Your task to perform on an android device: change notifications settings Image 0: 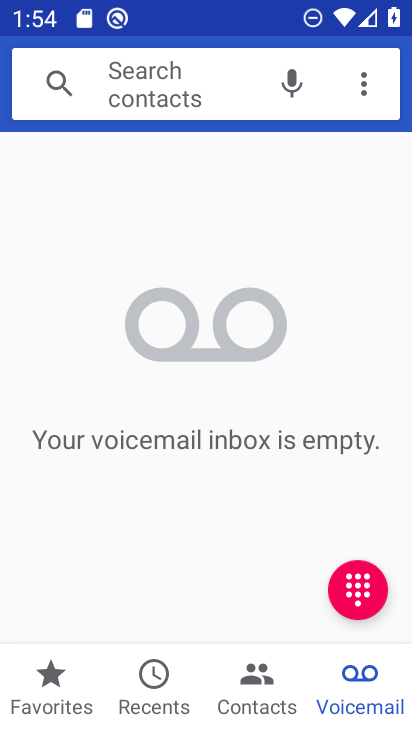
Step 0: press home button
Your task to perform on an android device: change notifications settings Image 1: 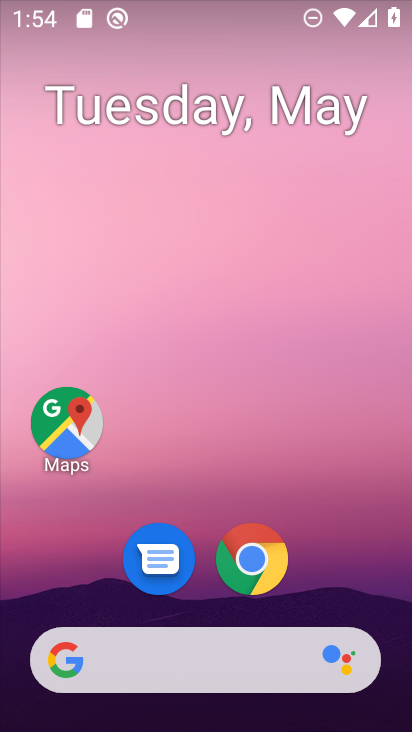
Step 1: drag from (386, 671) to (287, 99)
Your task to perform on an android device: change notifications settings Image 2: 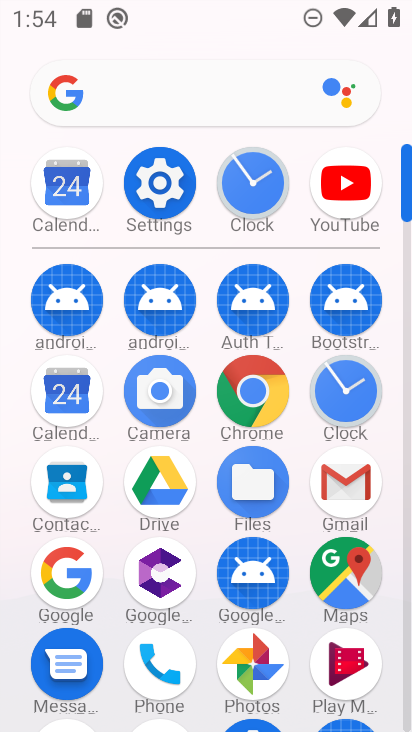
Step 2: click (172, 197)
Your task to perform on an android device: change notifications settings Image 3: 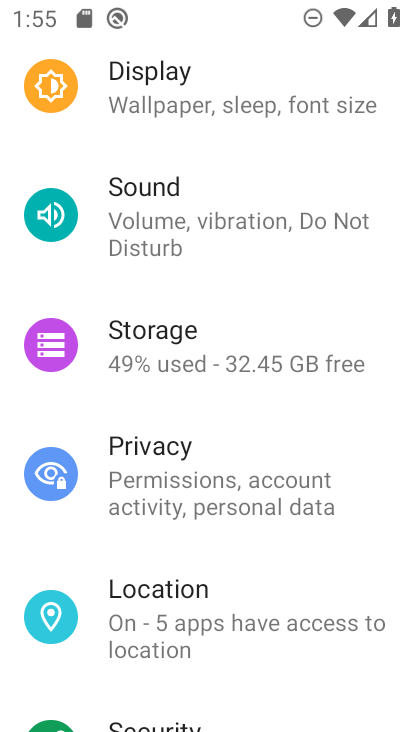
Step 3: drag from (239, 262) to (263, 604)
Your task to perform on an android device: change notifications settings Image 4: 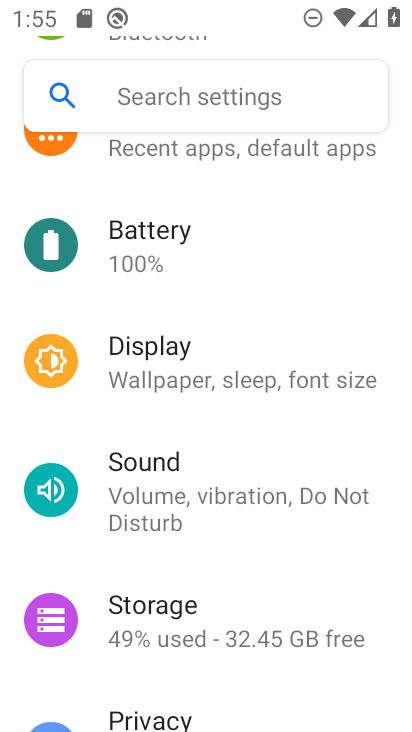
Step 4: drag from (165, 241) to (199, 560)
Your task to perform on an android device: change notifications settings Image 5: 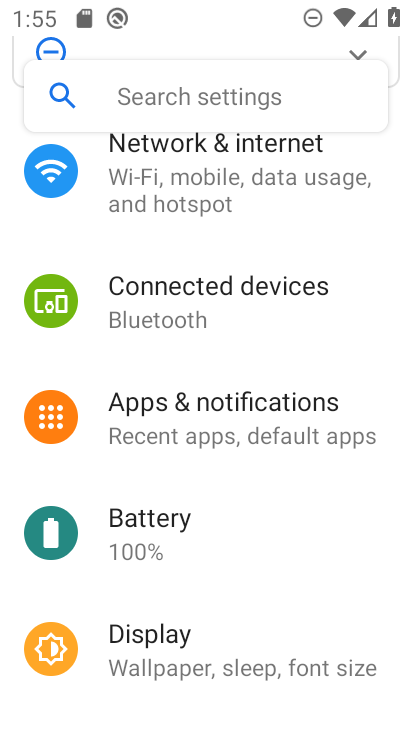
Step 5: click (222, 411)
Your task to perform on an android device: change notifications settings Image 6: 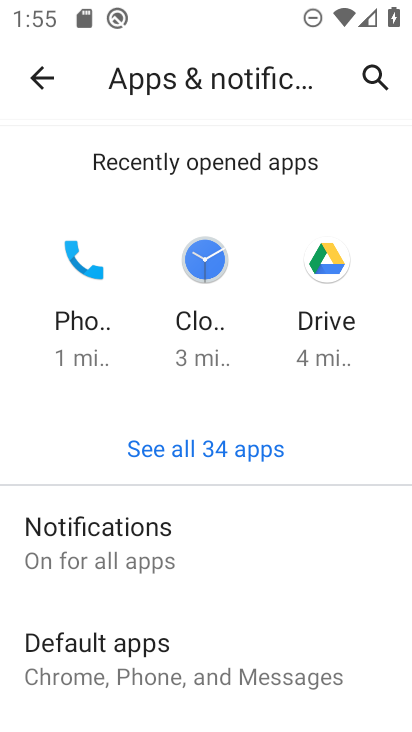
Step 6: click (161, 523)
Your task to perform on an android device: change notifications settings Image 7: 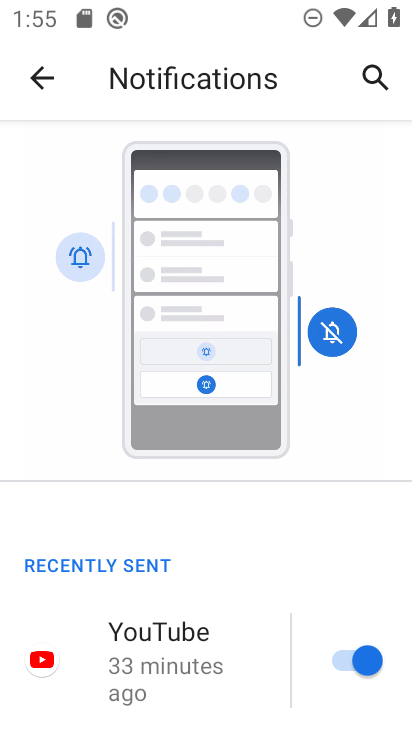
Step 7: task complete